Your task to perform on an android device: toggle notifications settings in the gmail app Image 0: 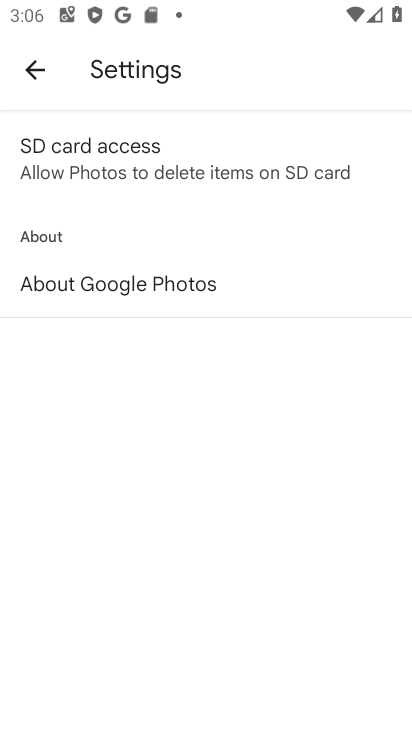
Step 0: press back button
Your task to perform on an android device: toggle notifications settings in the gmail app Image 1: 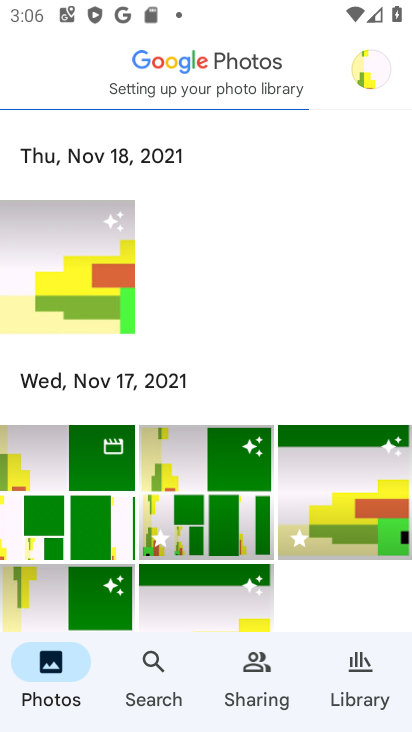
Step 1: press back button
Your task to perform on an android device: toggle notifications settings in the gmail app Image 2: 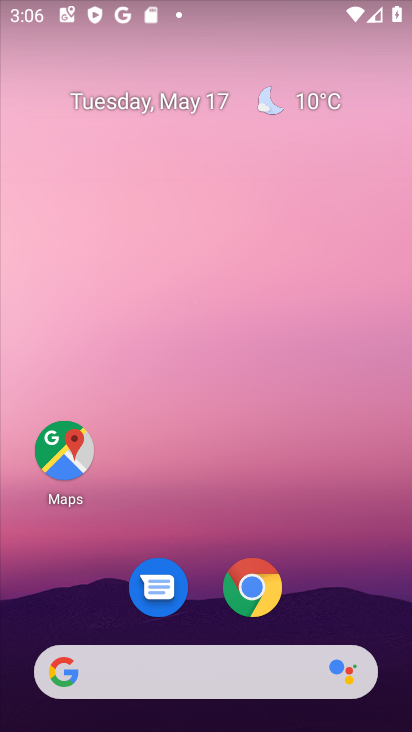
Step 2: drag from (340, 584) to (299, 12)
Your task to perform on an android device: toggle notifications settings in the gmail app Image 3: 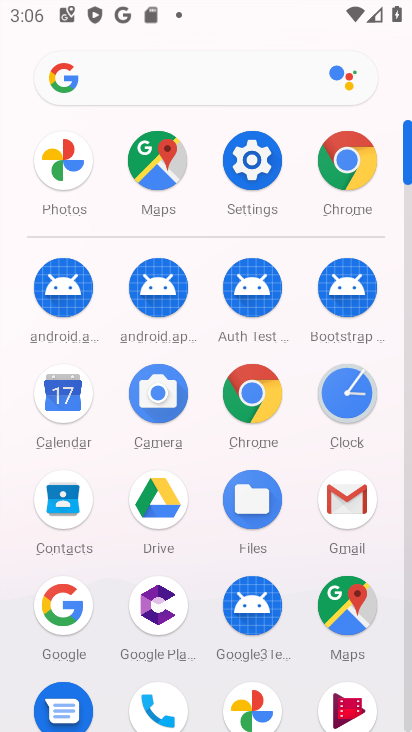
Step 3: drag from (16, 562) to (30, 257)
Your task to perform on an android device: toggle notifications settings in the gmail app Image 4: 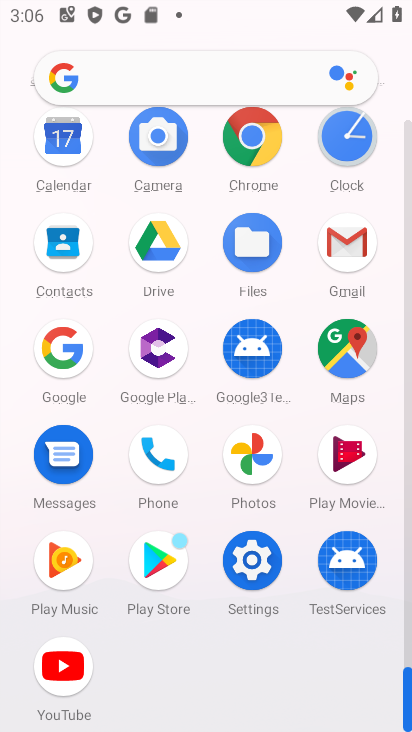
Step 4: click (355, 242)
Your task to perform on an android device: toggle notifications settings in the gmail app Image 5: 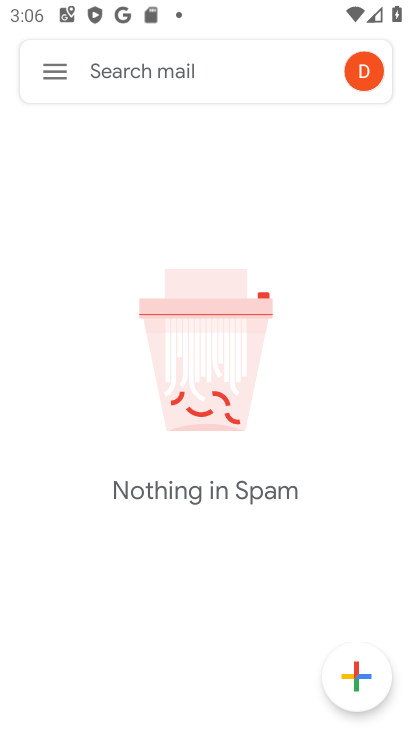
Step 5: click (53, 61)
Your task to perform on an android device: toggle notifications settings in the gmail app Image 6: 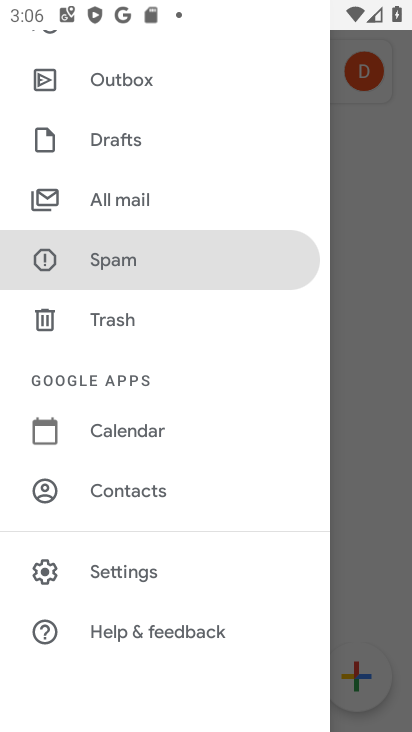
Step 6: drag from (122, 566) to (172, 174)
Your task to perform on an android device: toggle notifications settings in the gmail app Image 7: 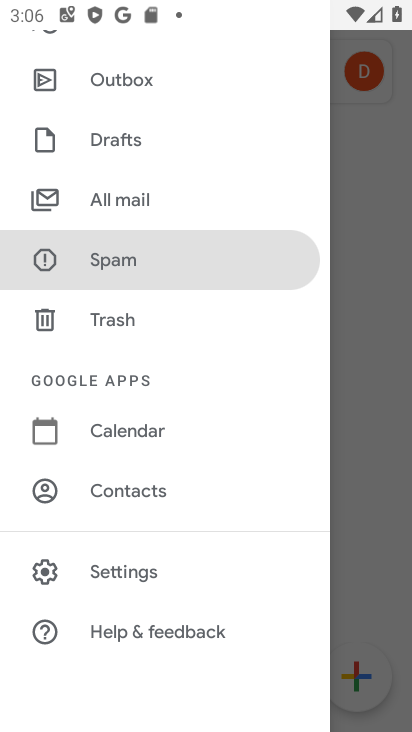
Step 7: click (135, 572)
Your task to perform on an android device: toggle notifications settings in the gmail app Image 8: 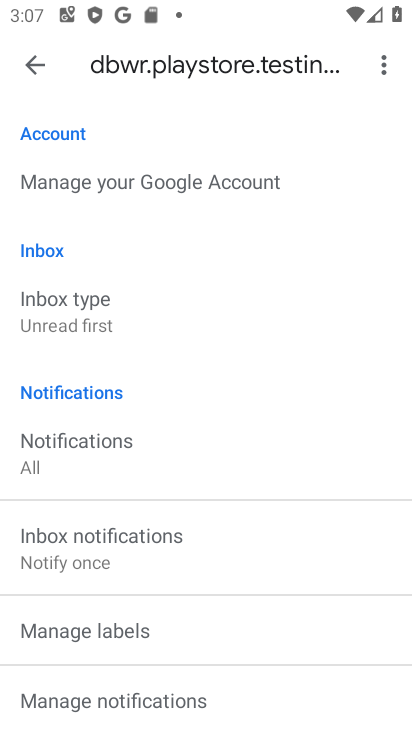
Step 8: click (123, 697)
Your task to perform on an android device: toggle notifications settings in the gmail app Image 9: 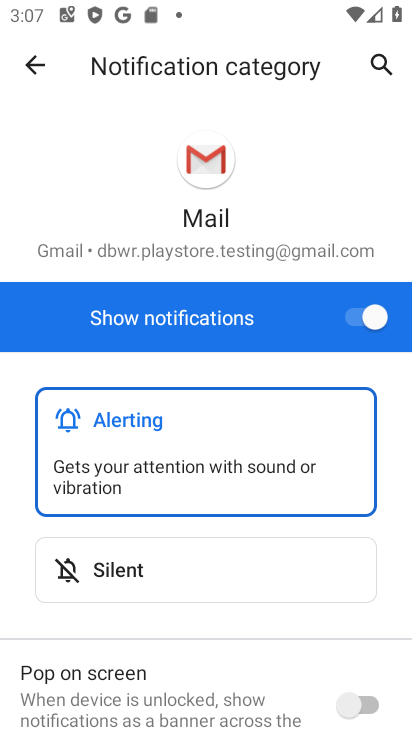
Step 9: click (354, 306)
Your task to perform on an android device: toggle notifications settings in the gmail app Image 10: 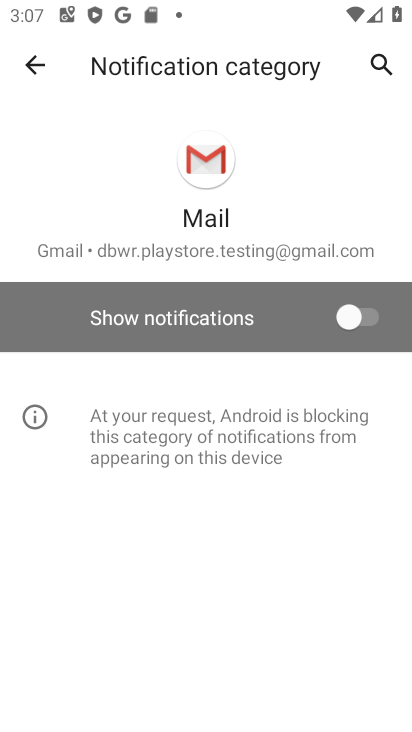
Step 10: task complete